Your task to perform on an android device: Play the last video I watched on Youtube Image 0: 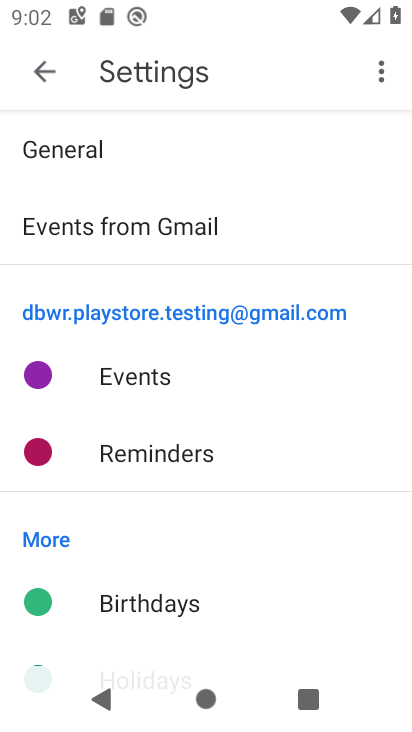
Step 0: drag from (236, 609) to (206, 260)
Your task to perform on an android device: Play the last video I watched on Youtube Image 1: 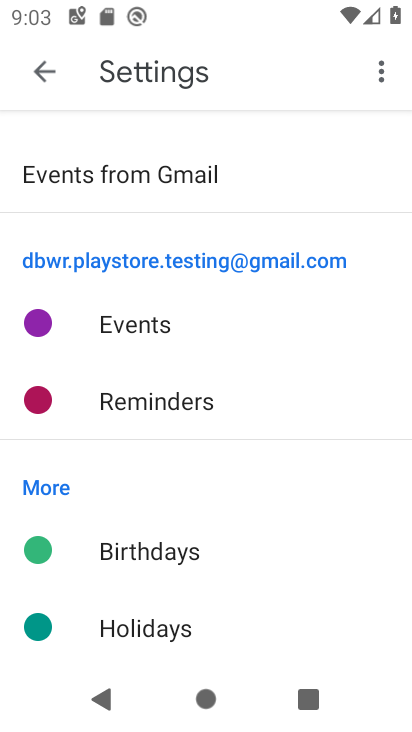
Step 1: press home button
Your task to perform on an android device: Play the last video I watched on Youtube Image 2: 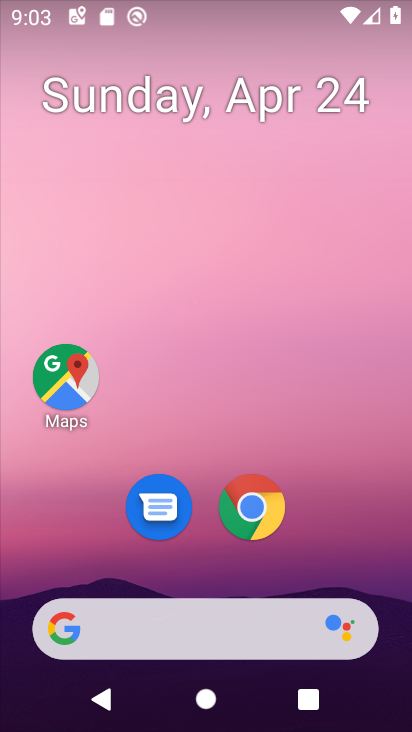
Step 2: drag from (314, 578) to (266, 7)
Your task to perform on an android device: Play the last video I watched on Youtube Image 3: 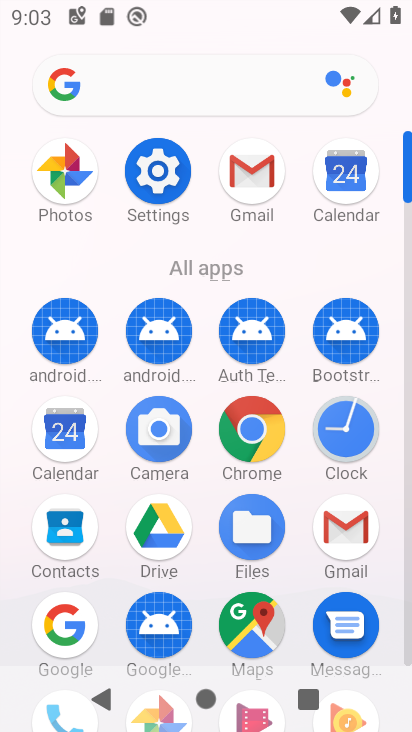
Step 3: drag from (189, 260) to (157, 0)
Your task to perform on an android device: Play the last video I watched on Youtube Image 4: 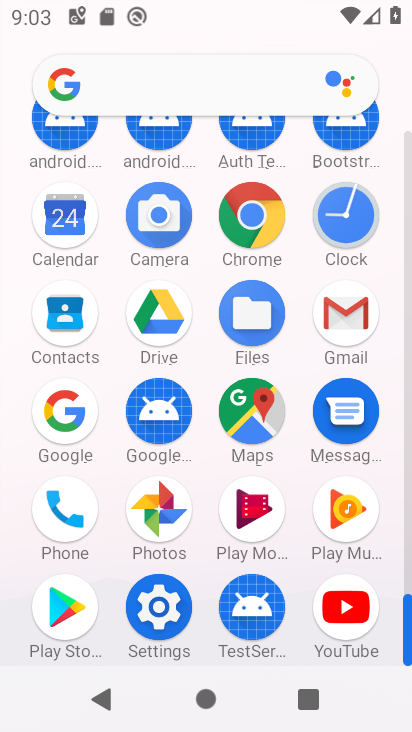
Step 4: click (362, 608)
Your task to perform on an android device: Play the last video I watched on Youtube Image 5: 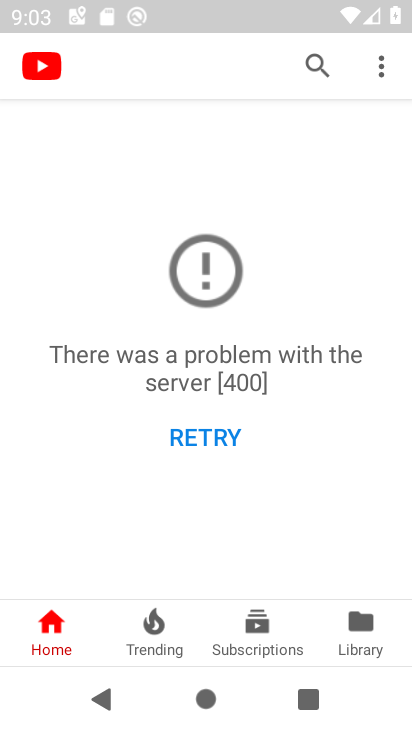
Step 5: click (210, 438)
Your task to perform on an android device: Play the last video I watched on Youtube Image 6: 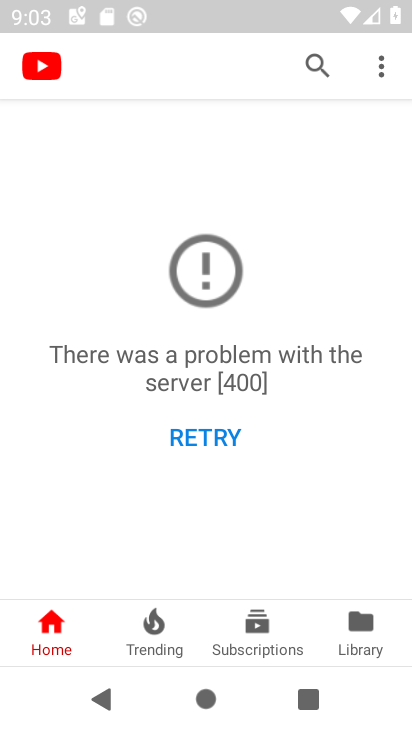
Step 6: click (367, 636)
Your task to perform on an android device: Play the last video I watched on Youtube Image 7: 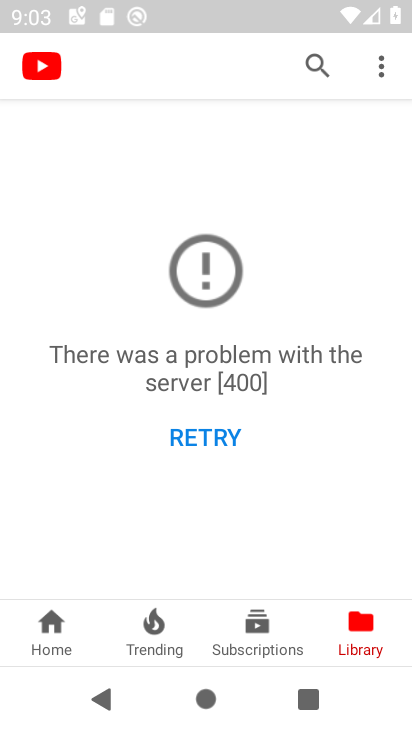
Step 7: click (358, 611)
Your task to perform on an android device: Play the last video I watched on Youtube Image 8: 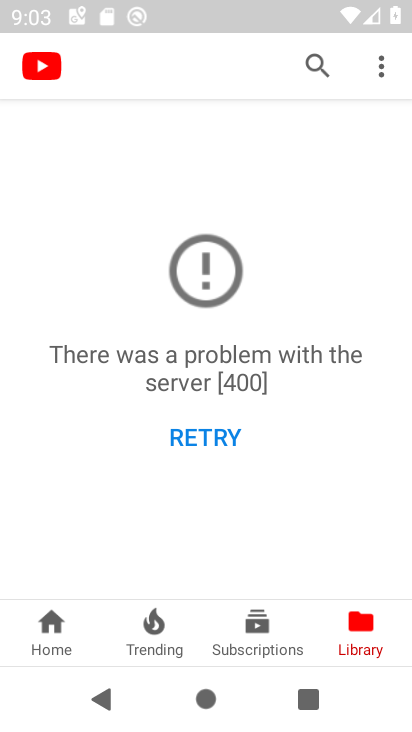
Step 8: task complete